Your task to perform on an android device: turn on translation in the chrome app Image 0: 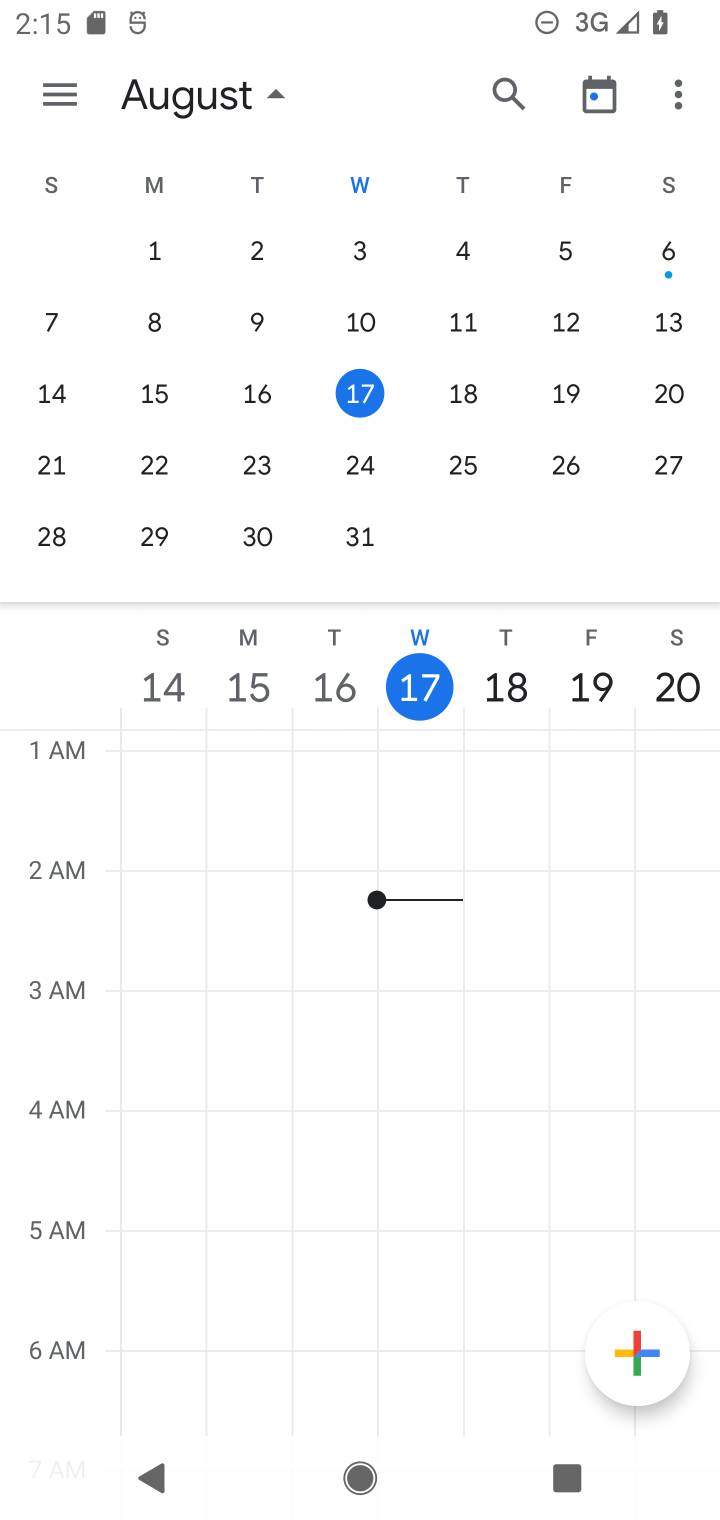
Step 0: press home button
Your task to perform on an android device: turn on translation in the chrome app Image 1: 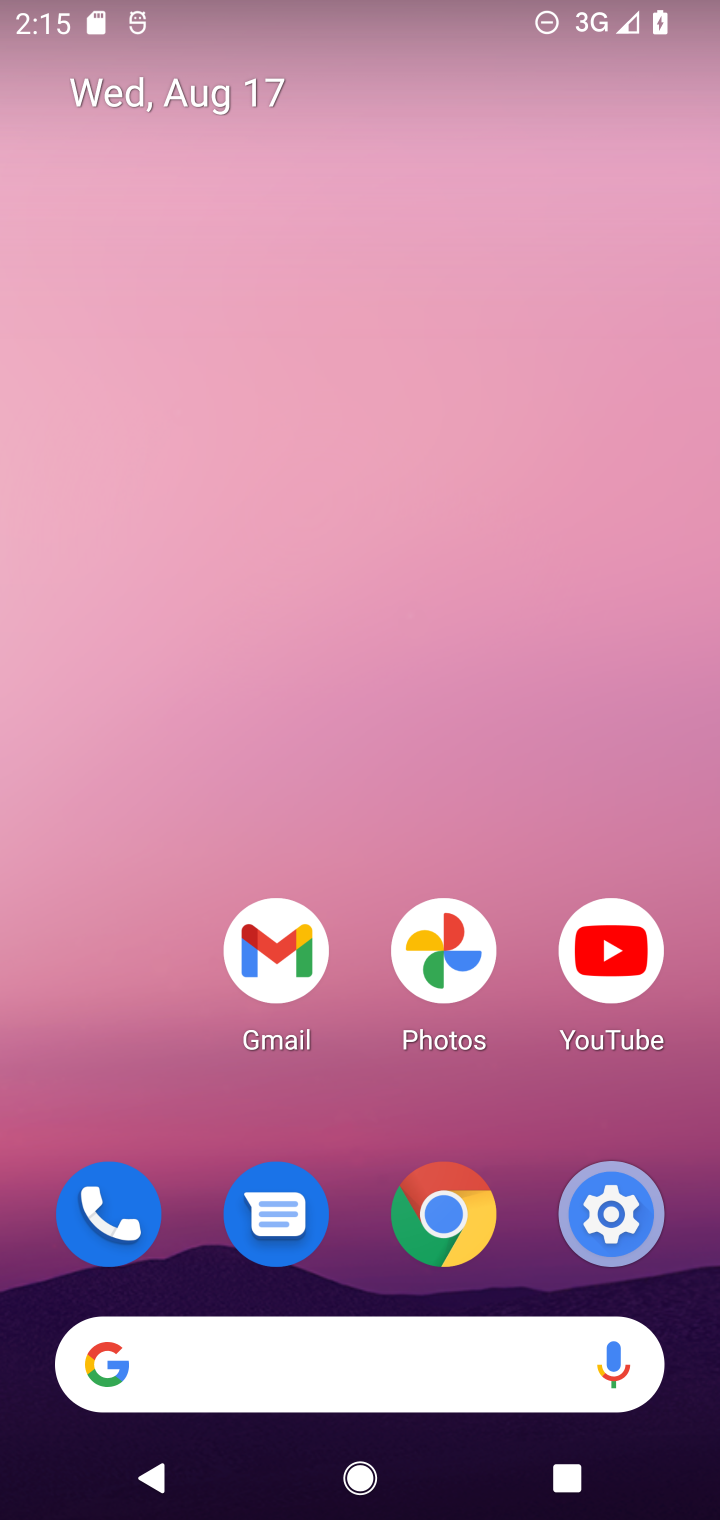
Step 1: click (449, 1218)
Your task to perform on an android device: turn on translation in the chrome app Image 2: 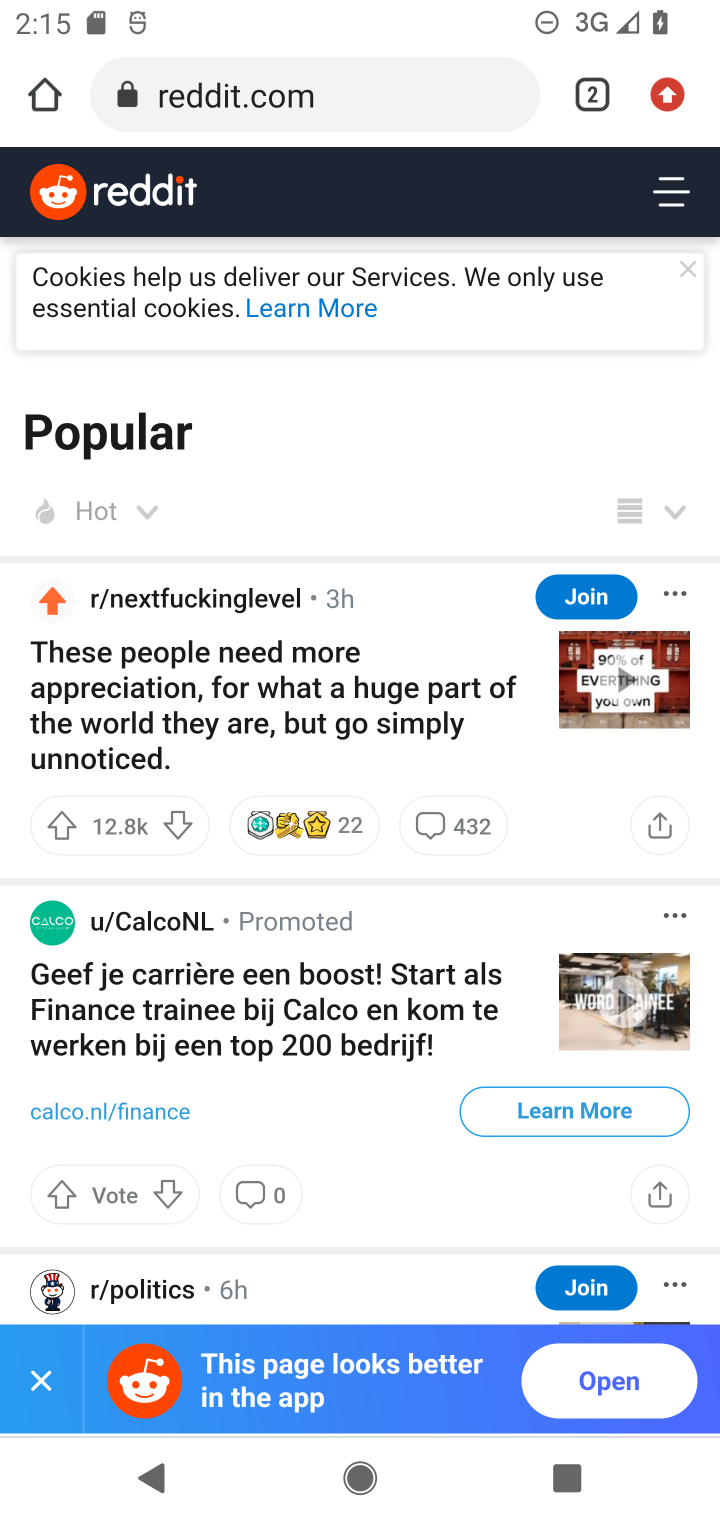
Step 2: click (676, 97)
Your task to perform on an android device: turn on translation in the chrome app Image 3: 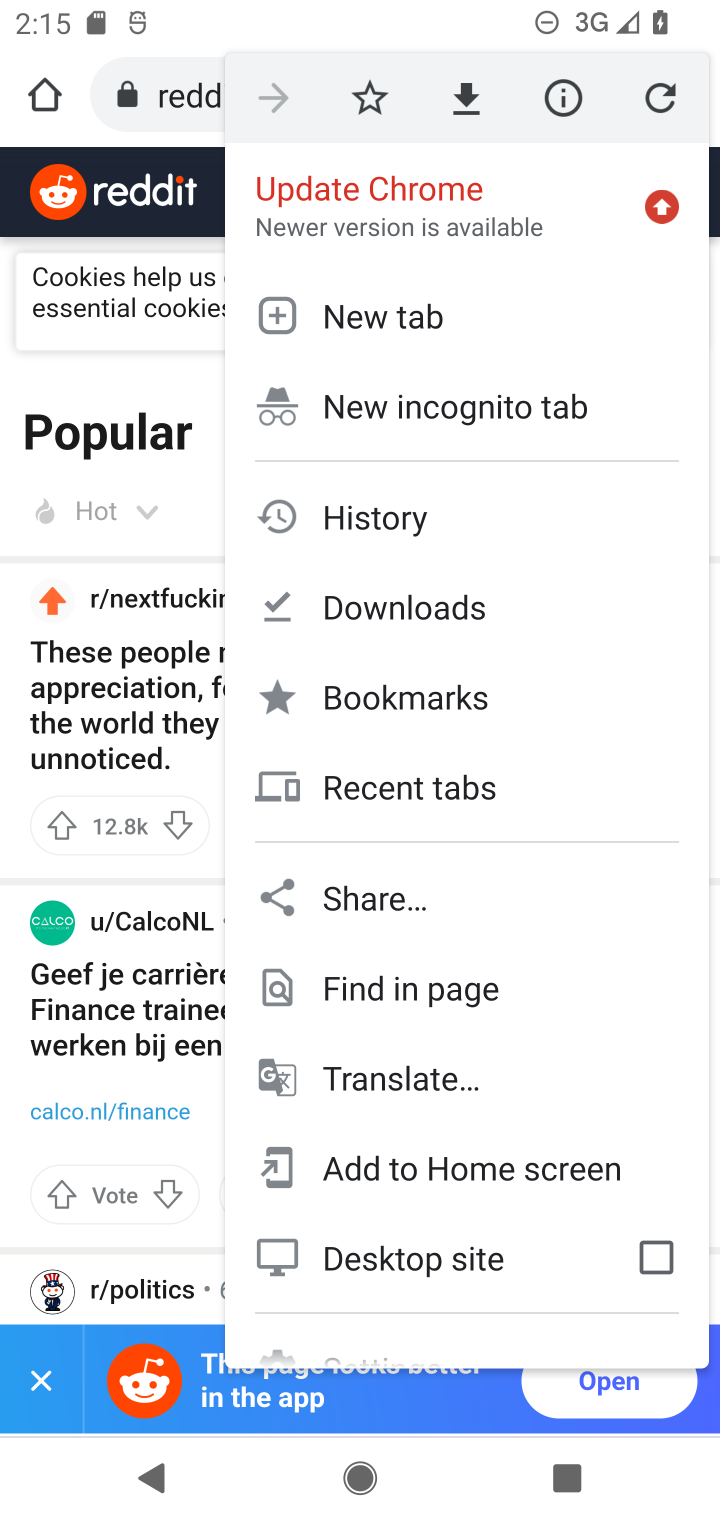
Step 3: drag from (542, 1035) to (475, 499)
Your task to perform on an android device: turn on translation in the chrome app Image 4: 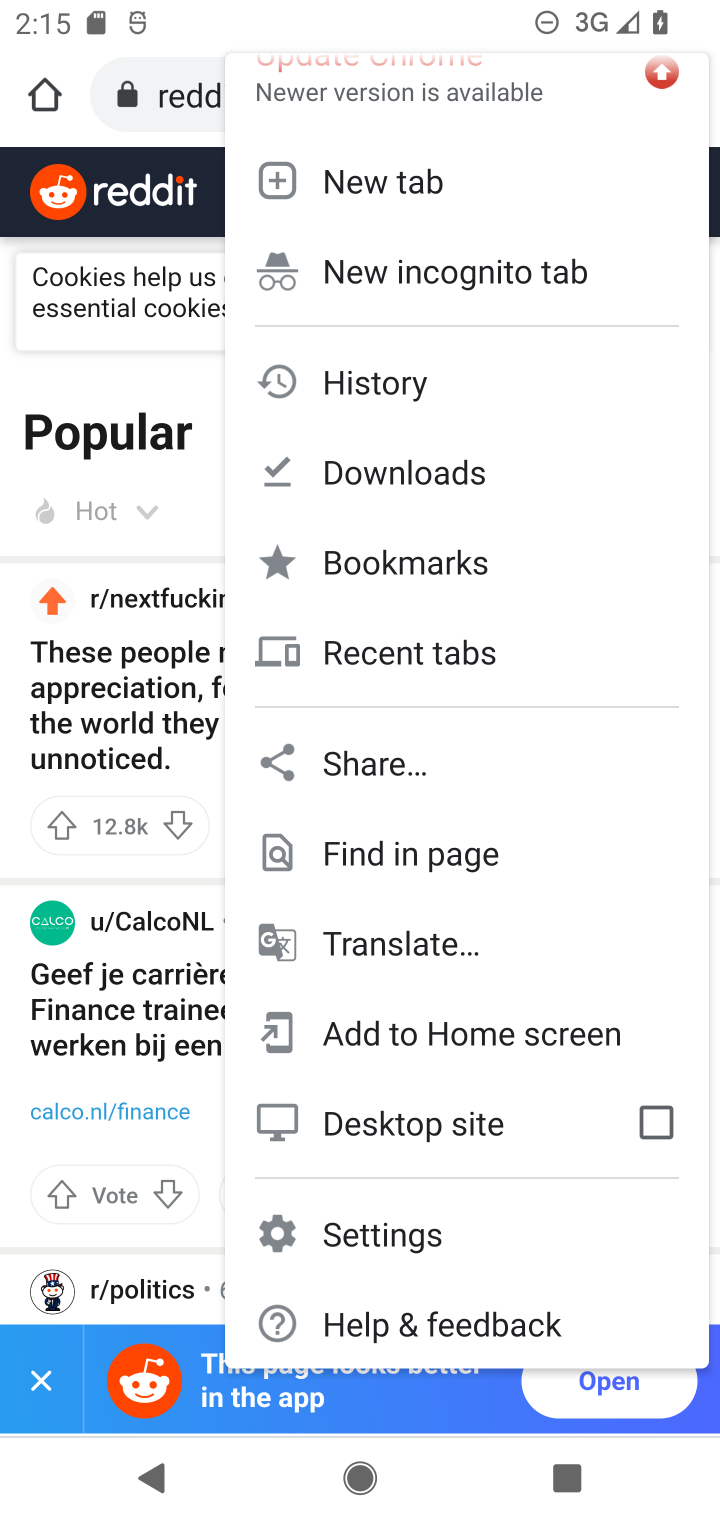
Step 4: click (360, 1234)
Your task to perform on an android device: turn on translation in the chrome app Image 5: 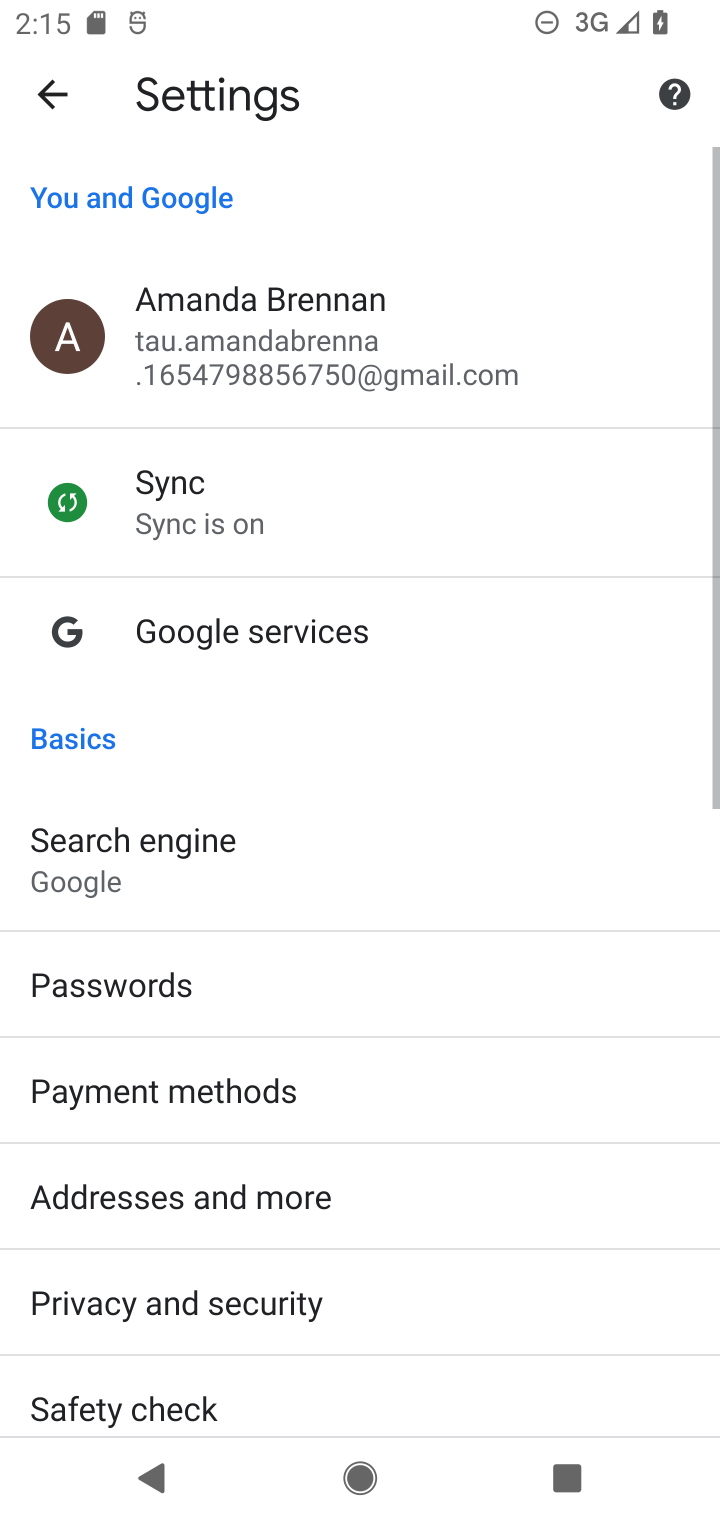
Step 5: drag from (408, 1278) to (368, 310)
Your task to perform on an android device: turn on translation in the chrome app Image 6: 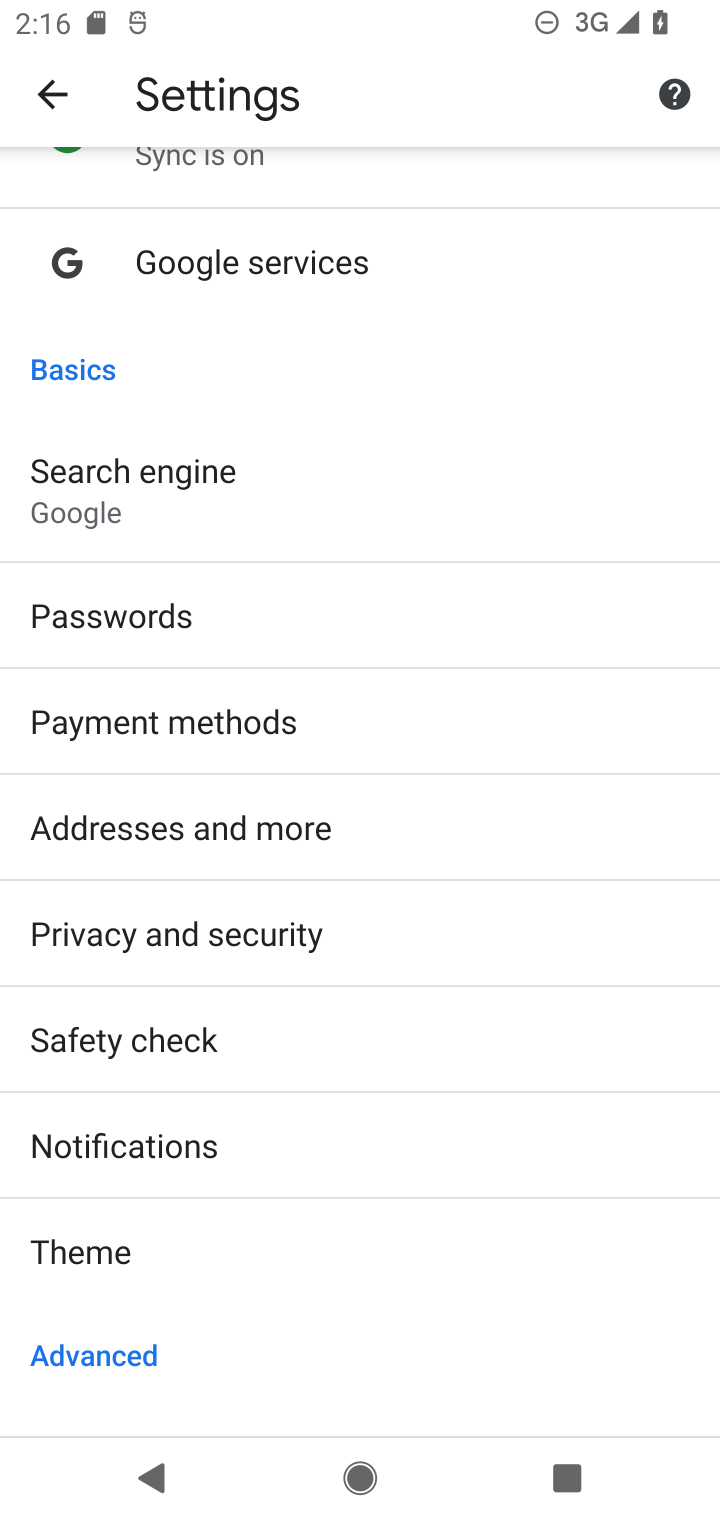
Step 6: drag from (371, 1276) to (374, 748)
Your task to perform on an android device: turn on translation in the chrome app Image 7: 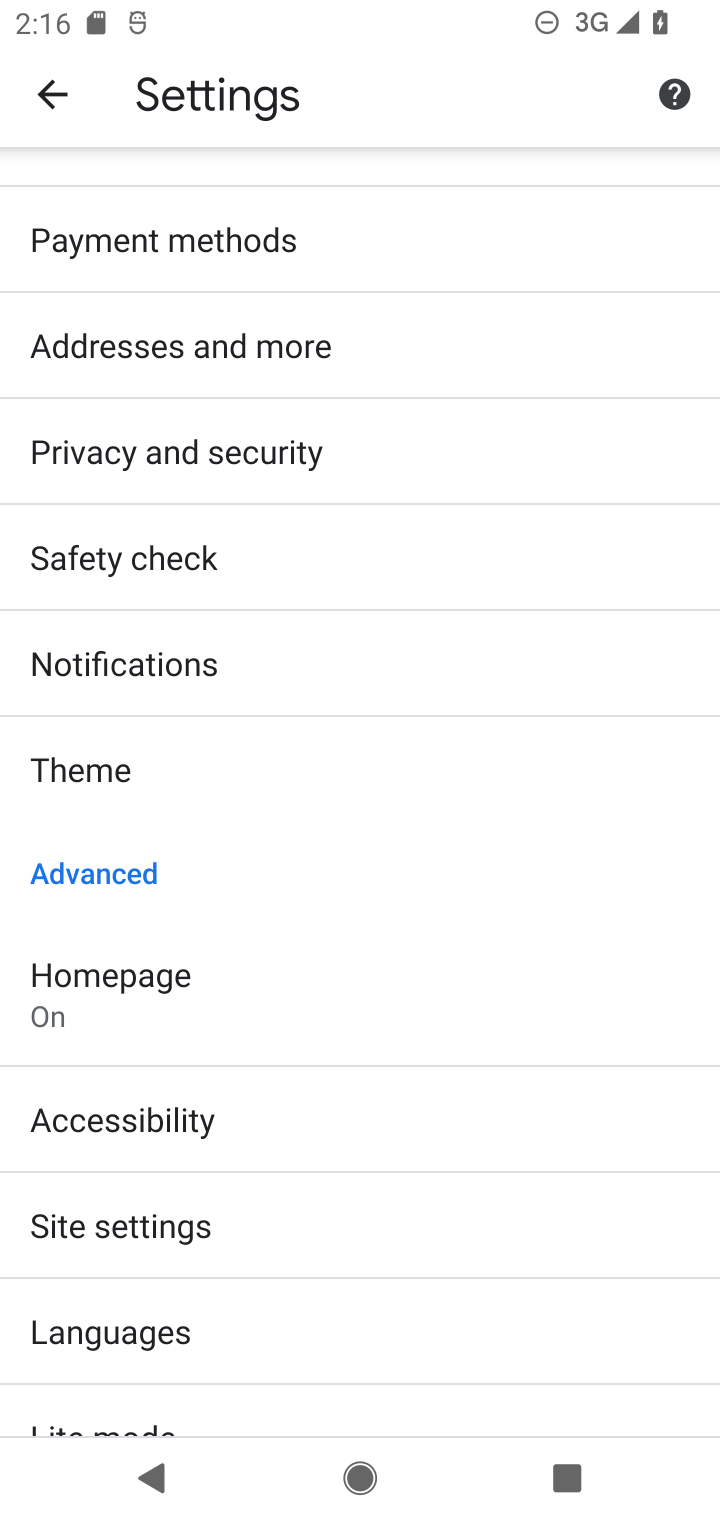
Step 7: click (136, 1340)
Your task to perform on an android device: turn on translation in the chrome app Image 8: 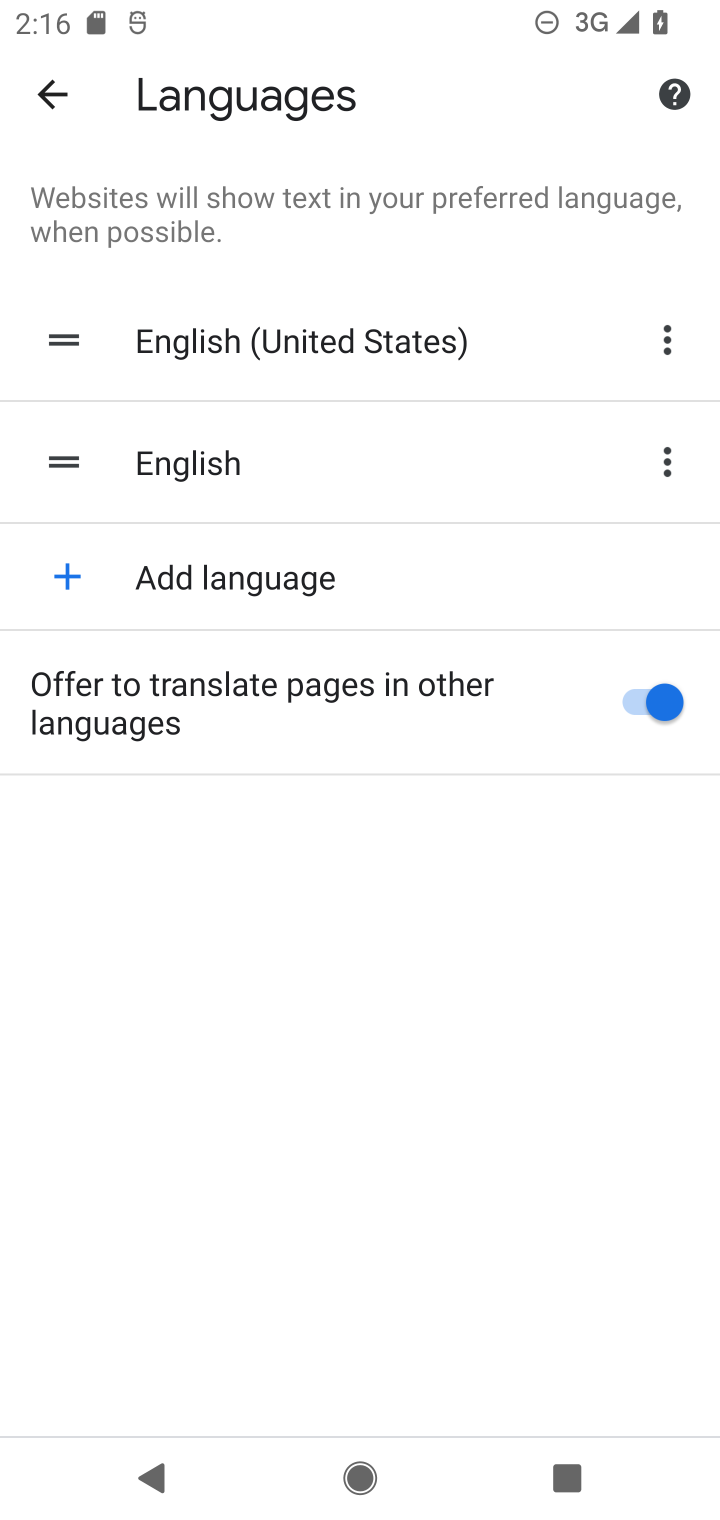
Step 8: task complete